Your task to perform on an android device: Open notification settings Image 0: 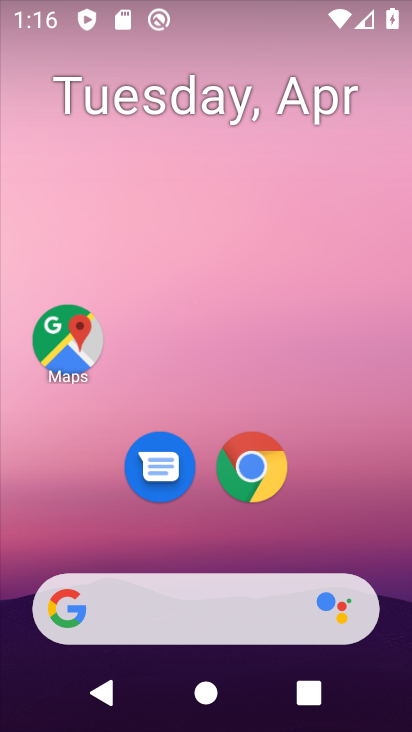
Step 0: drag from (381, 544) to (361, 89)
Your task to perform on an android device: Open notification settings Image 1: 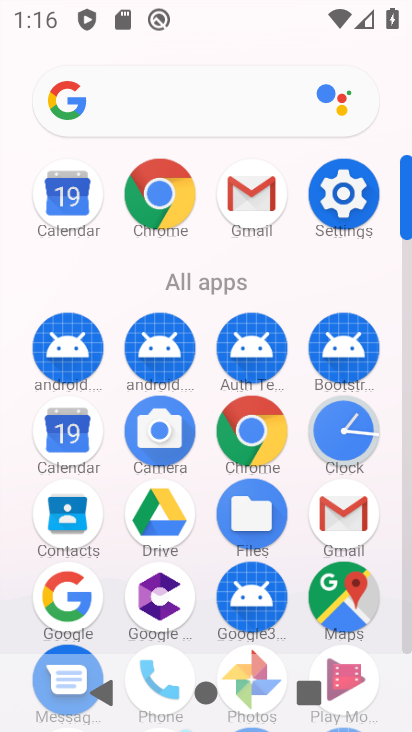
Step 1: click (356, 204)
Your task to perform on an android device: Open notification settings Image 2: 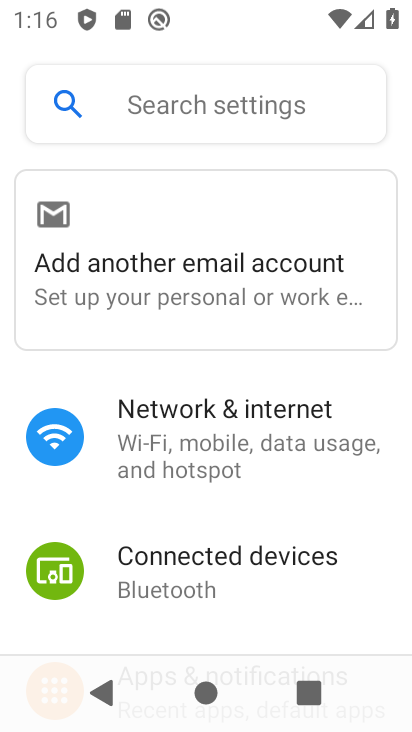
Step 2: drag from (381, 584) to (383, 381)
Your task to perform on an android device: Open notification settings Image 3: 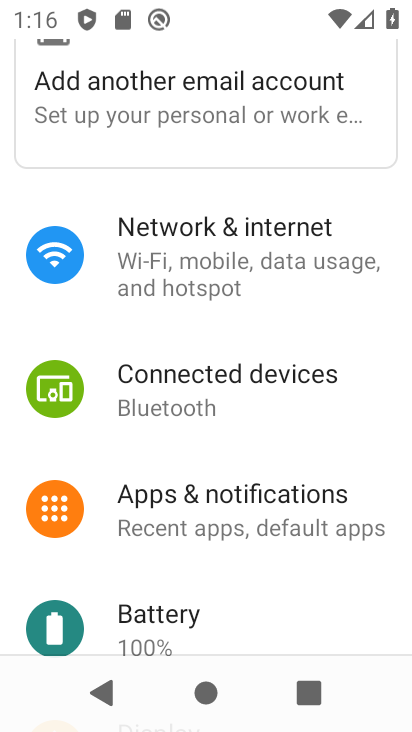
Step 3: drag from (375, 510) to (383, 294)
Your task to perform on an android device: Open notification settings Image 4: 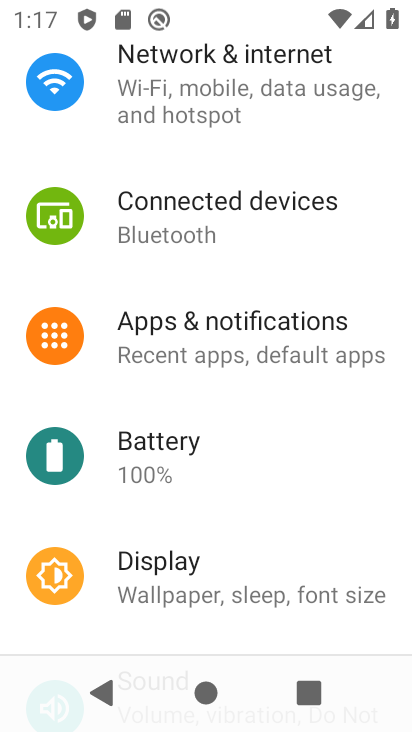
Step 4: click (258, 343)
Your task to perform on an android device: Open notification settings Image 5: 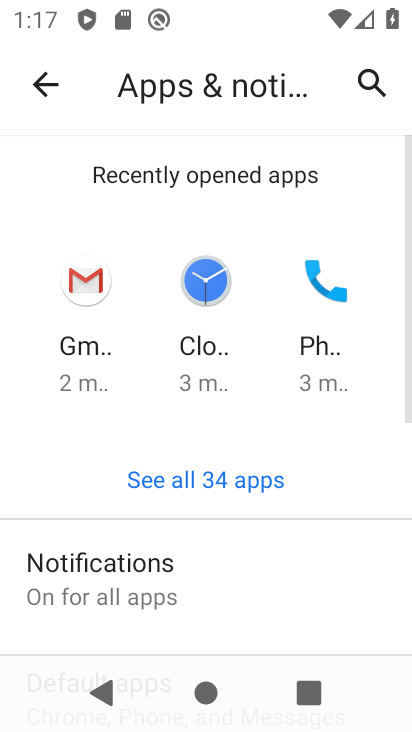
Step 5: drag from (305, 585) to (349, 288)
Your task to perform on an android device: Open notification settings Image 6: 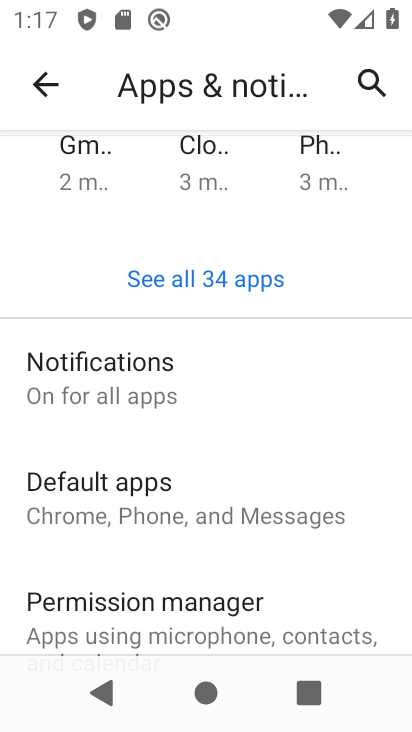
Step 6: click (84, 386)
Your task to perform on an android device: Open notification settings Image 7: 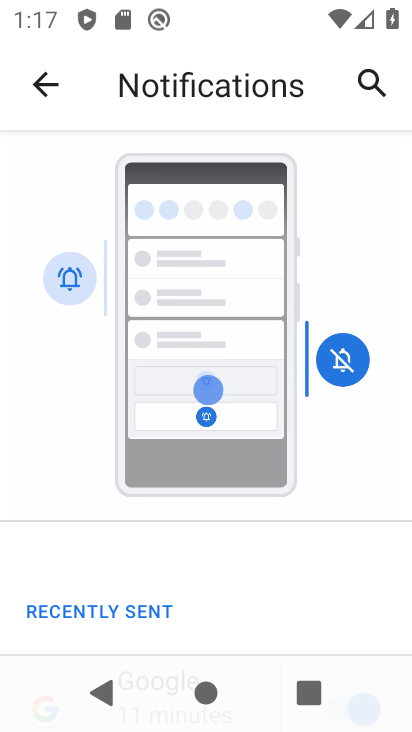
Step 7: task complete